Your task to perform on an android device: show emergency info Image 0: 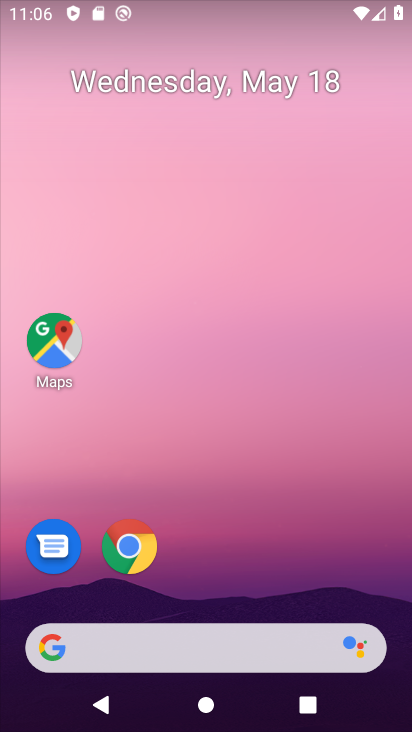
Step 0: drag from (217, 546) to (225, 125)
Your task to perform on an android device: show emergency info Image 1: 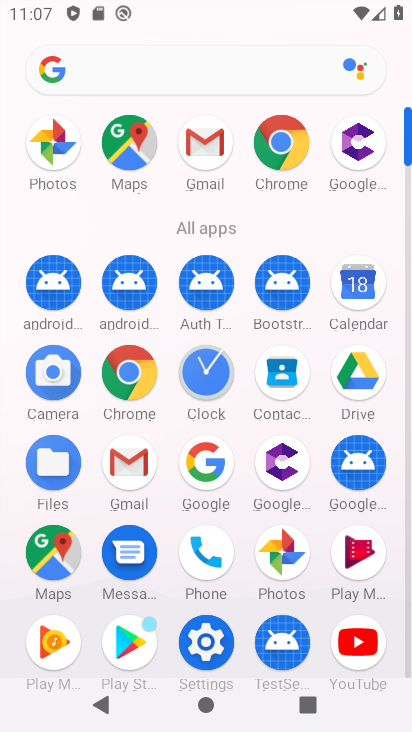
Step 1: click (201, 641)
Your task to perform on an android device: show emergency info Image 2: 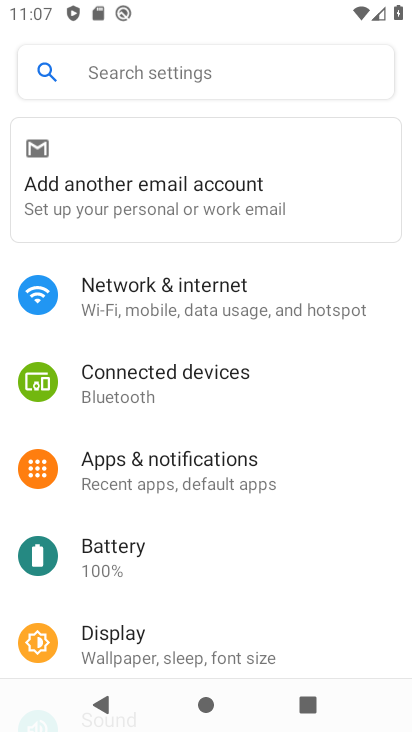
Step 2: drag from (203, 639) to (320, 42)
Your task to perform on an android device: show emergency info Image 3: 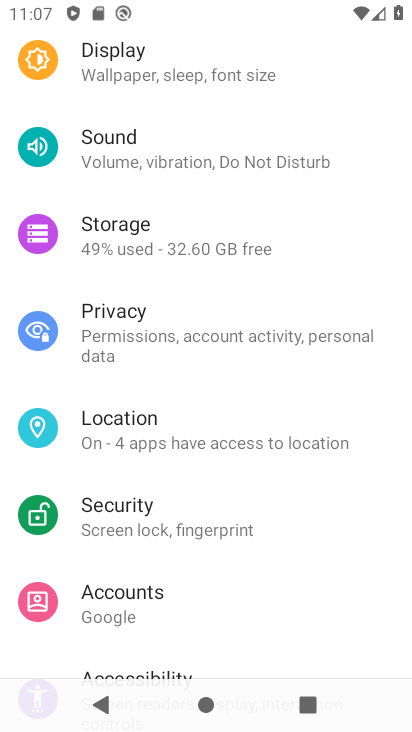
Step 3: drag from (261, 611) to (276, 76)
Your task to perform on an android device: show emergency info Image 4: 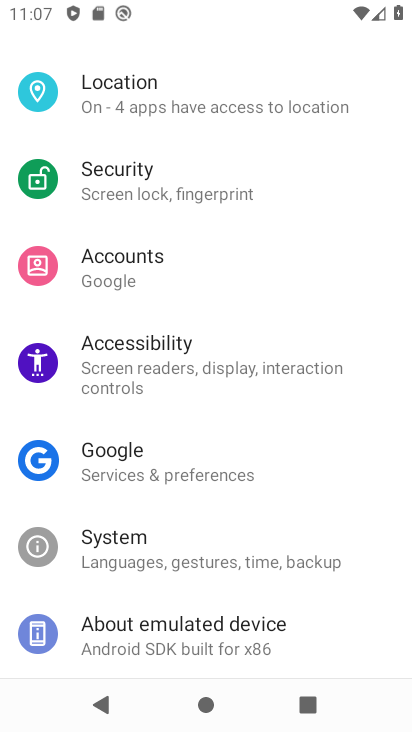
Step 4: click (190, 648)
Your task to perform on an android device: show emergency info Image 5: 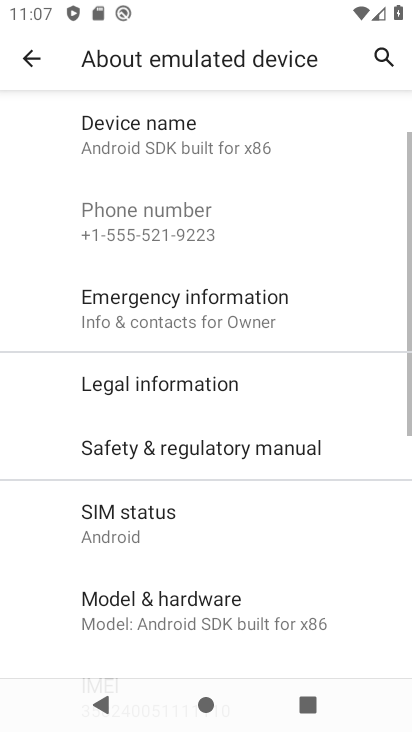
Step 5: click (163, 332)
Your task to perform on an android device: show emergency info Image 6: 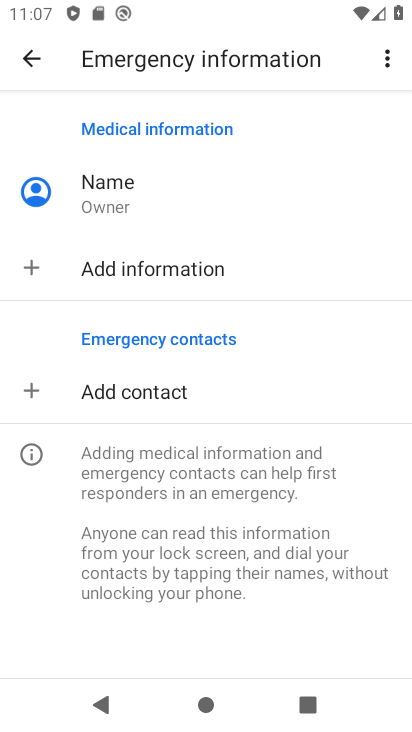
Step 6: task complete